Your task to perform on an android device: read, delete, or share a saved page in the chrome app Image 0: 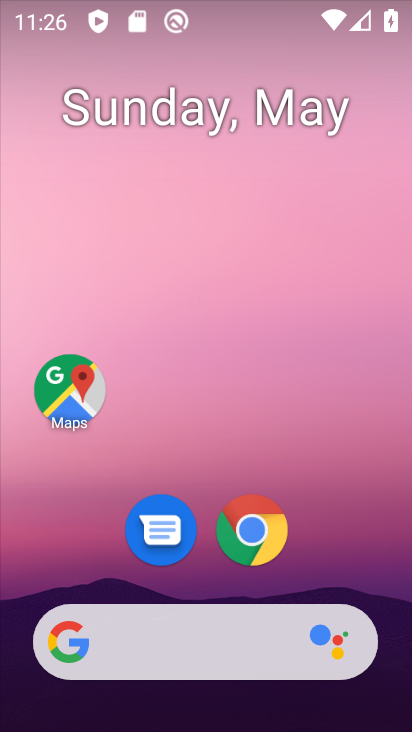
Step 0: click (247, 537)
Your task to perform on an android device: read, delete, or share a saved page in the chrome app Image 1: 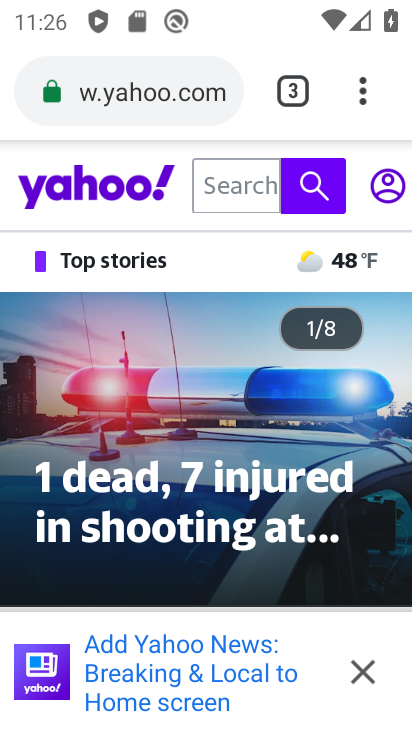
Step 1: drag from (360, 89) to (131, 599)
Your task to perform on an android device: read, delete, or share a saved page in the chrome app Image 2: 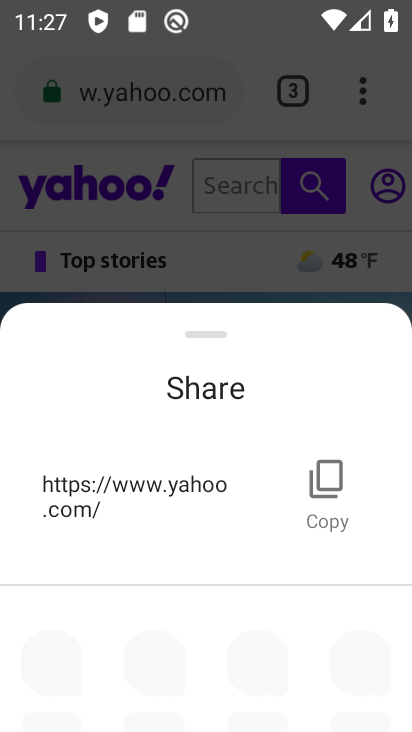
Step 2: press back button
Your task to perform on an android device: read, delete, or share a saved page in the chrome app Image 3: 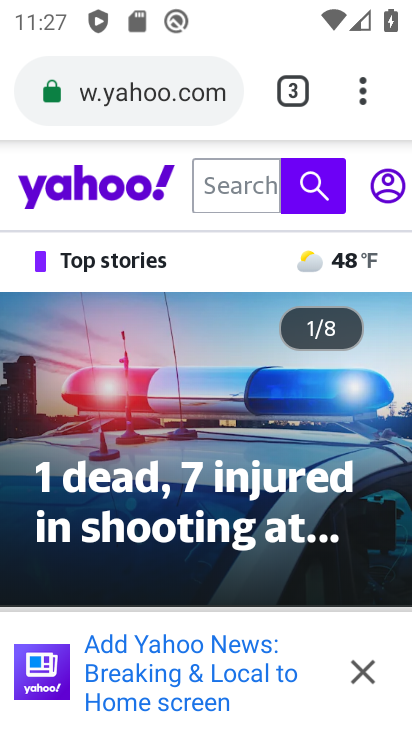
Step 3: drag from (355, 82) to (140, 541)
Your task to perform on an android device: read, delete, or share a saved page in the chrome app Image 4: 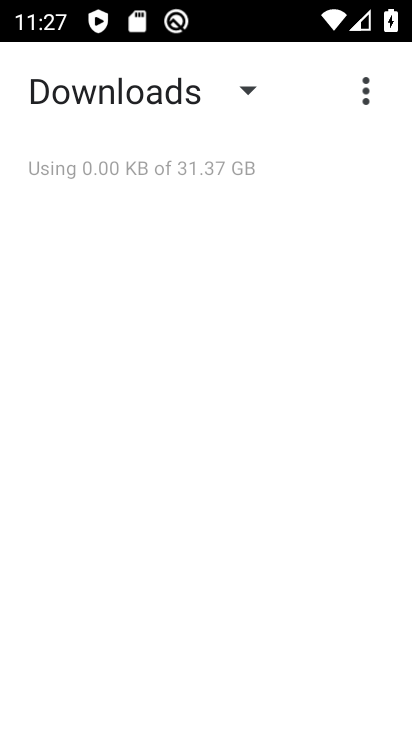
Step 4: click (251, 95)
Your task to perform on an android device: read, delete, or share a saved page in the chrome app Image 5: 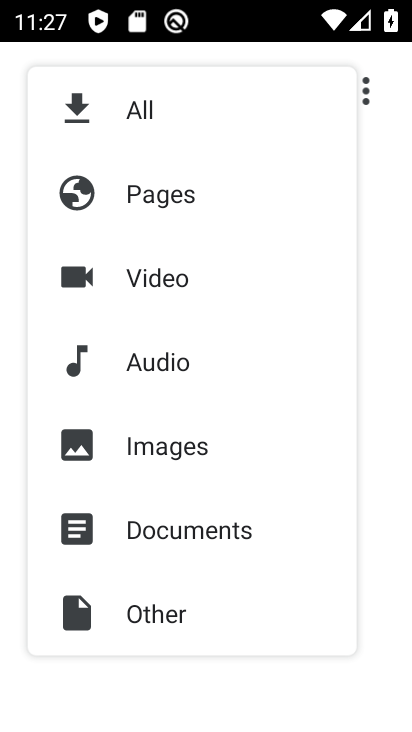
Step 5: click (172, 179)
Your task to perform on an android device: read, delete, or share a saved page in the chrome app Image 6: 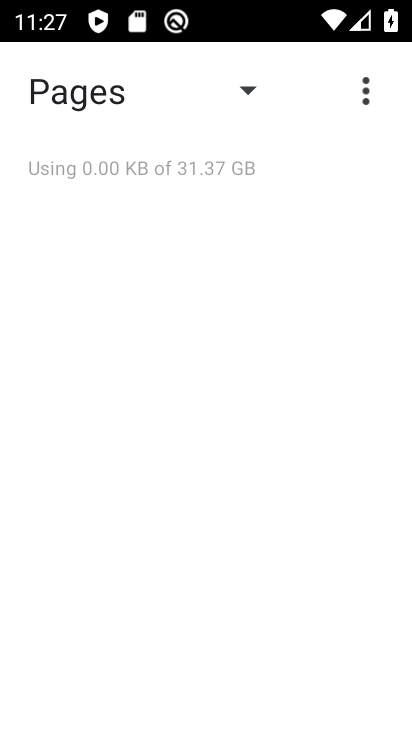
Step 6: task complete